Your task to perform on an android device: install app "Grab" Image 0: 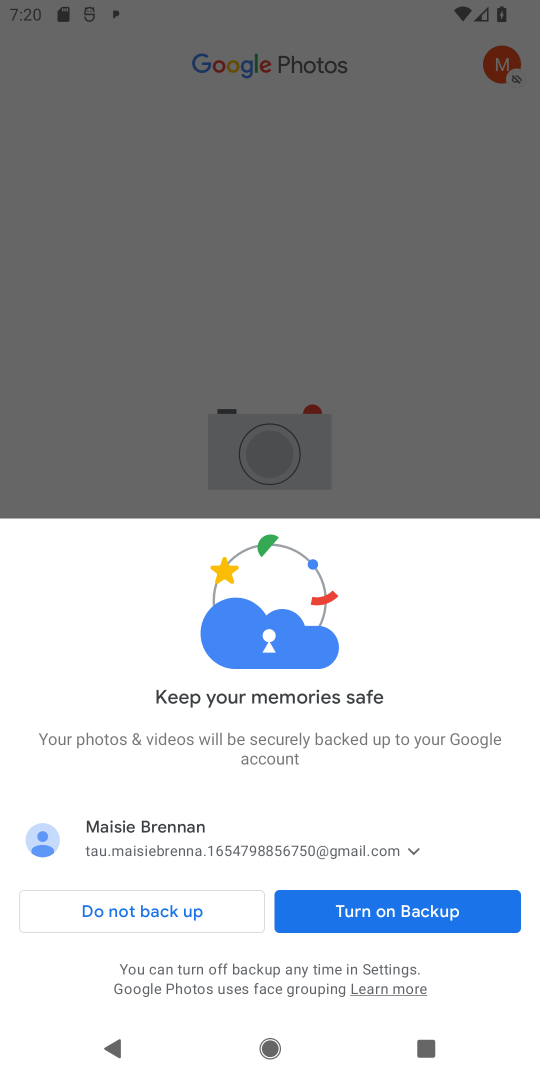
Step 0: press home button
Your task to perform on an android device: install app "Grab" Image 1: 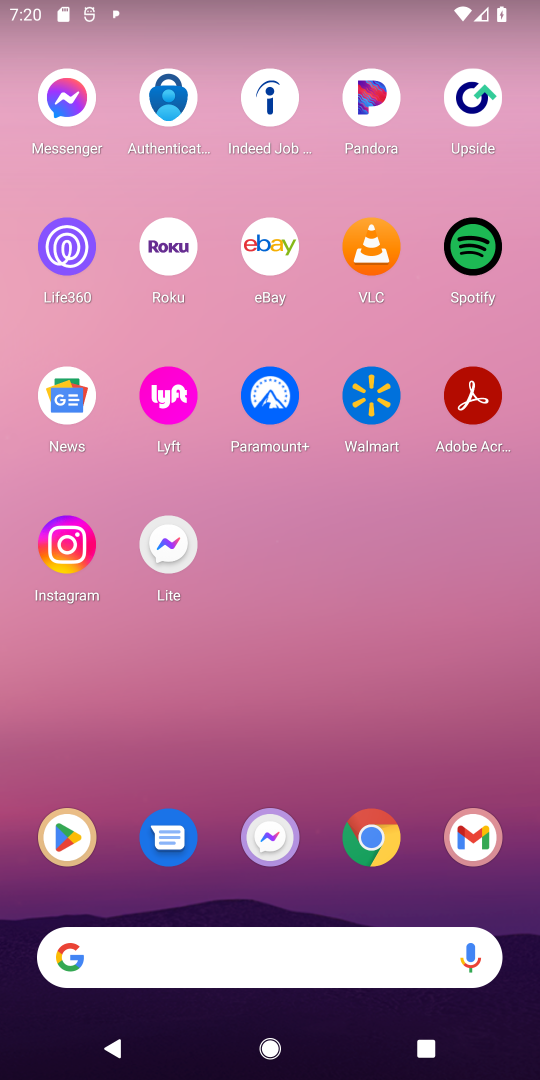
Step 1: click (50, 834)
Your task to perform on an android device: install app "Grab" Image 2: 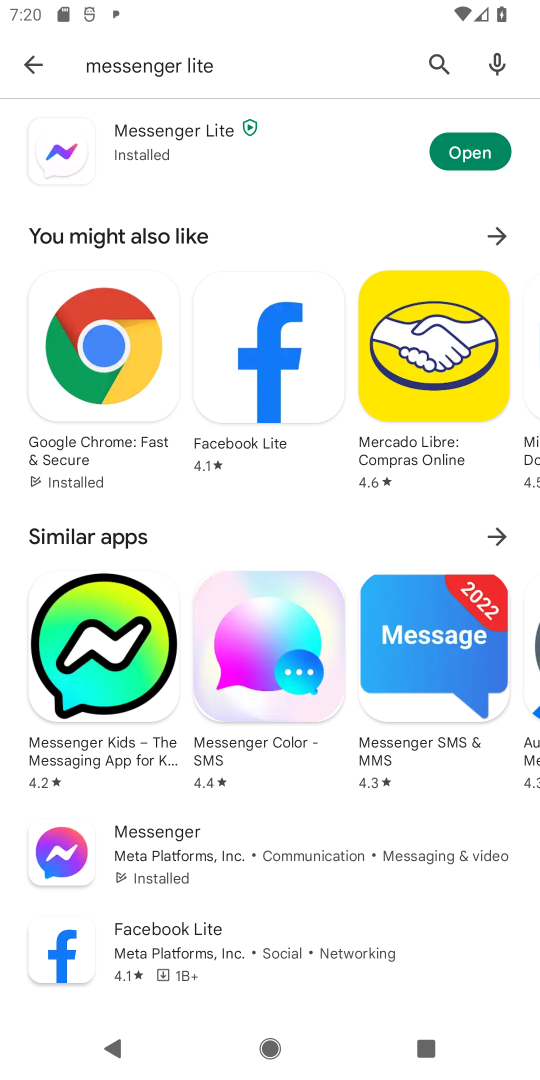
Step 2: click (438, 78)
Your task to perform on an android device: install app "Grab" Image 3: 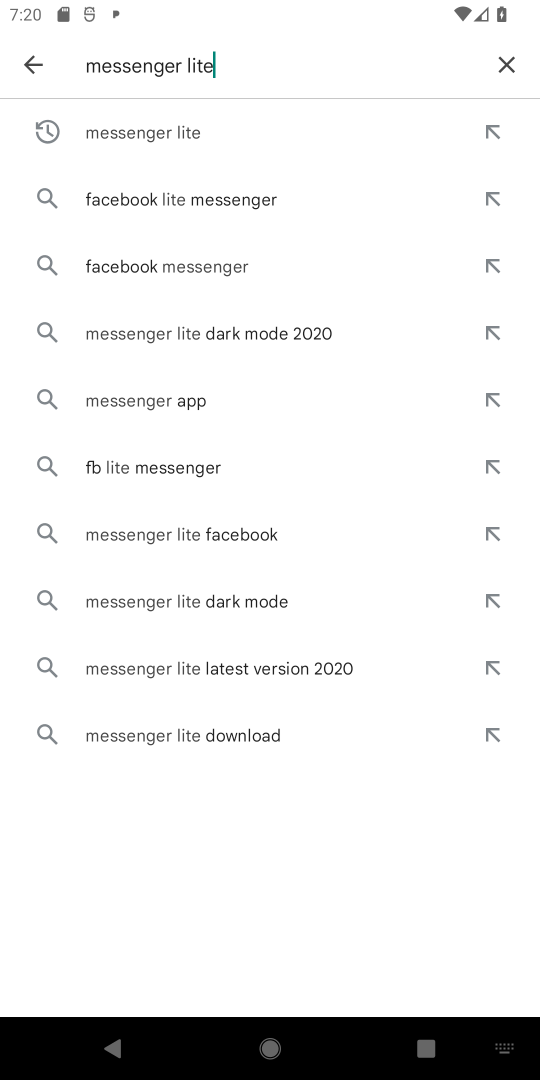
Step 3: click (503, 69)
Your task to perform on an android device: install app "Grab" Image 4: 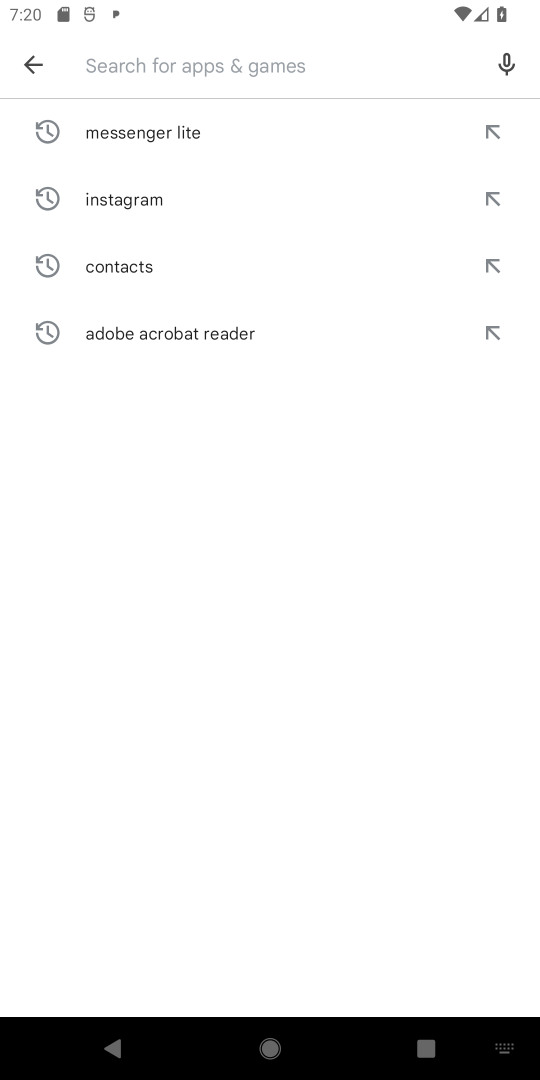
Step 4: type "Grab"
Your task to perform on an android device: install app "Grab" Image 5: 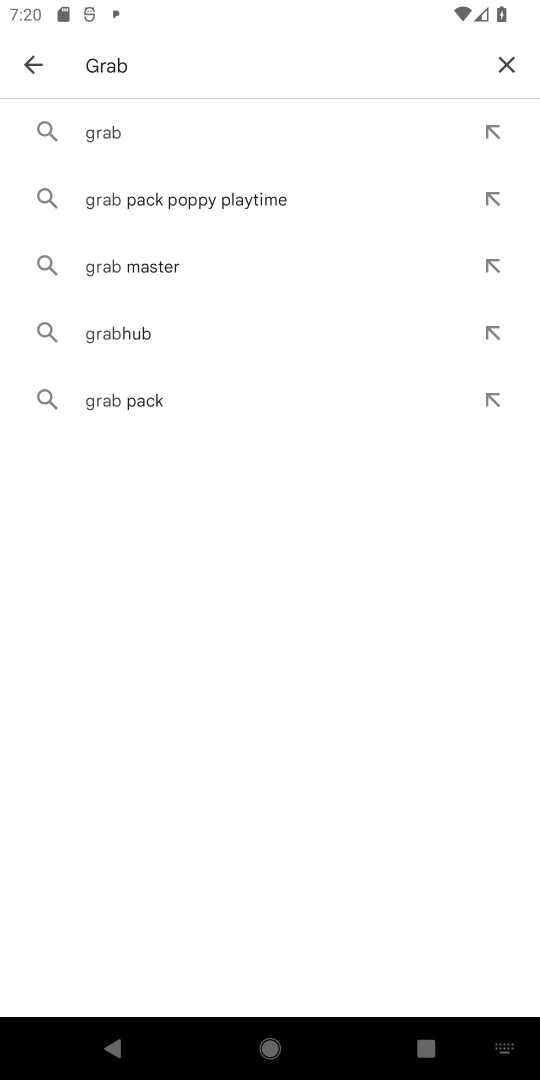
Step 5: click (97, 130)
Your task to perform on an android device: install app "Grab" Image 6: 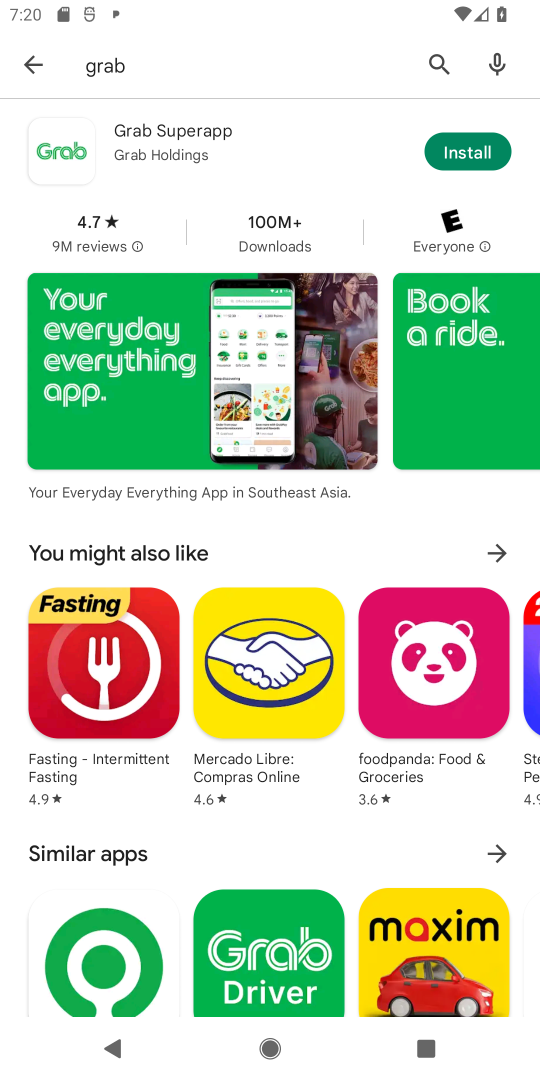
Step 6: click (457, 166)
Your task to perform on an android device: install app "Grab" Image 7: 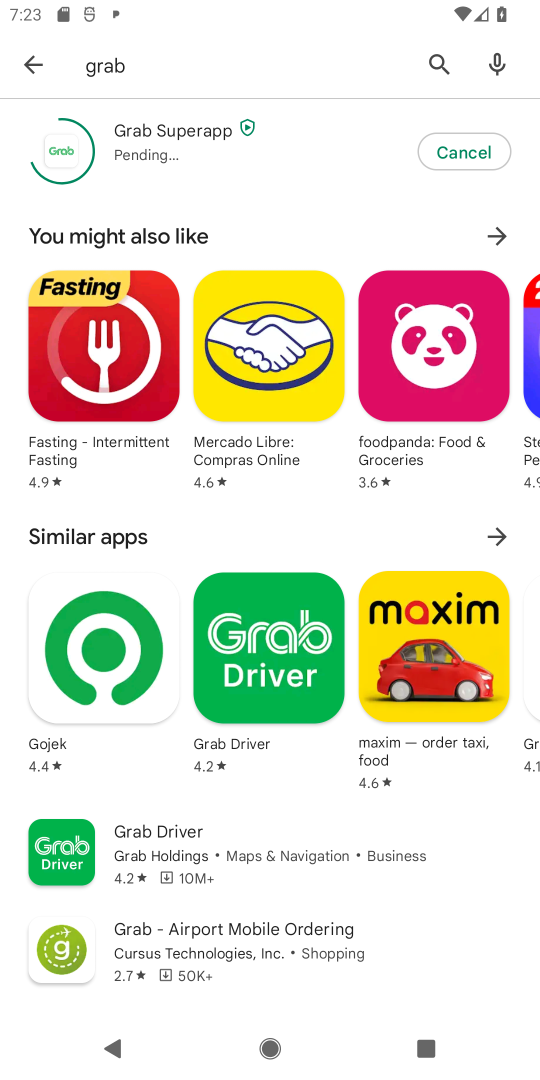
Step 7: click (439, 144)
Your task to perform on an android device: install app "Grab" Image 8: 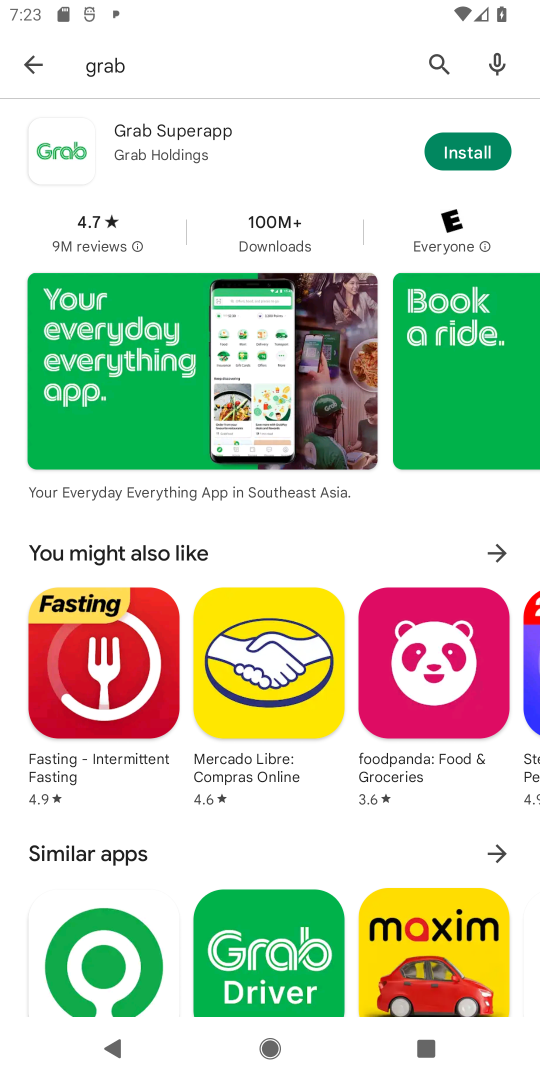
Step 8: click (444, 153)
Your task to perform on an android device: install app "Grab" Image 9: 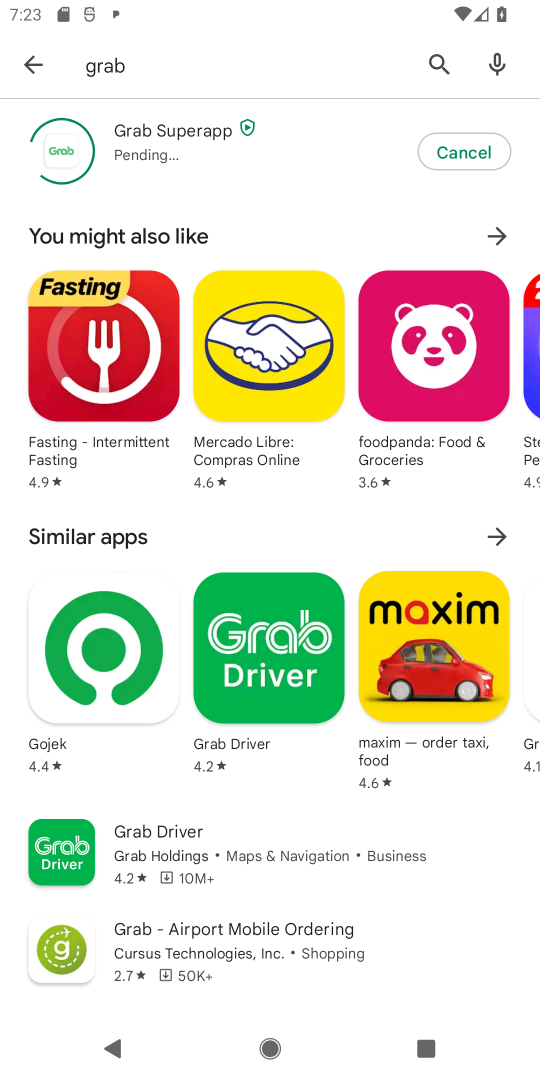
Step 9: task complete